Your task to perform on an android device: Go to internet settings Image 0: 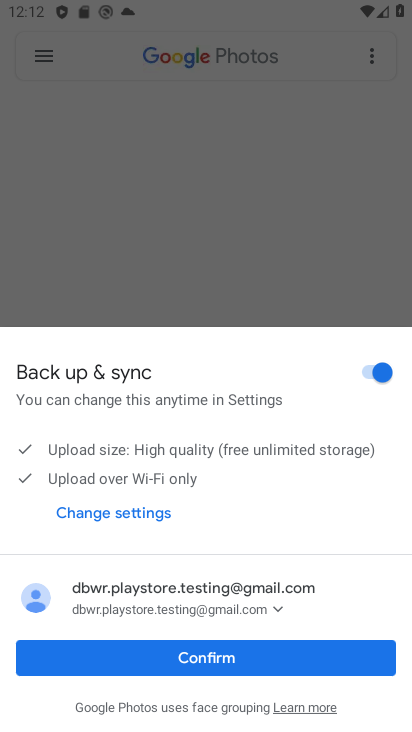
Step 0: press home button
Your task to perform on an android device: Go to internet settings Image 1: 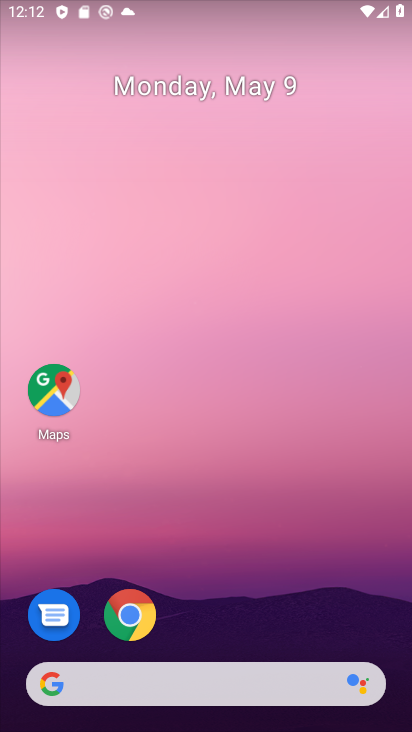
Step 1: drag from (247, 602) to (199, 106)
Your task to perform on an android device: Go to internet settings Image 2: 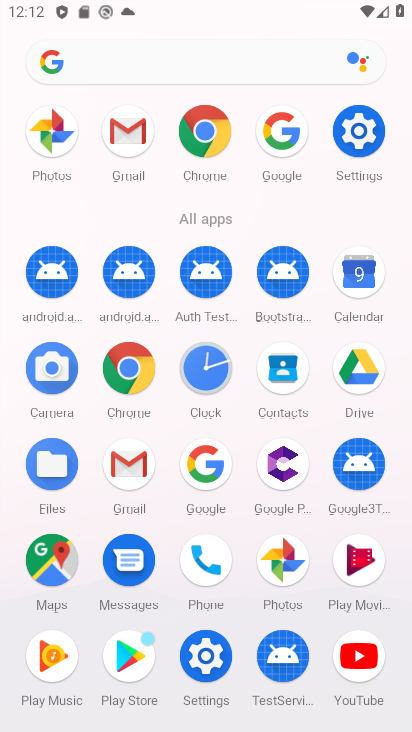
Step 2: click (358, 131)
Your task to perform on an android device: Go to internet settings Image 3: 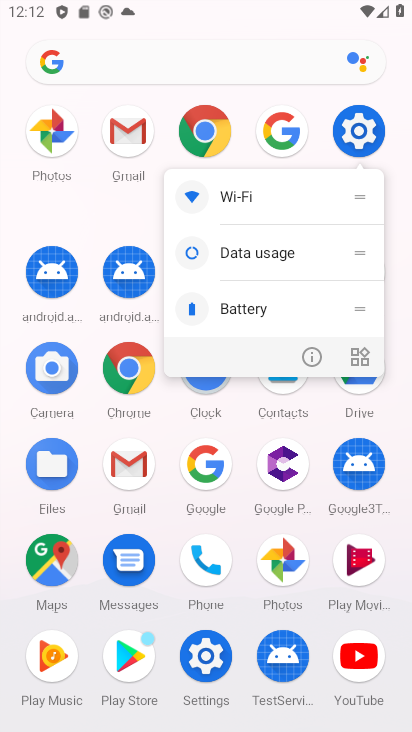
Step 3: click (360, 132)
Your task to perform on an android device: Go to internet settings Image 4: 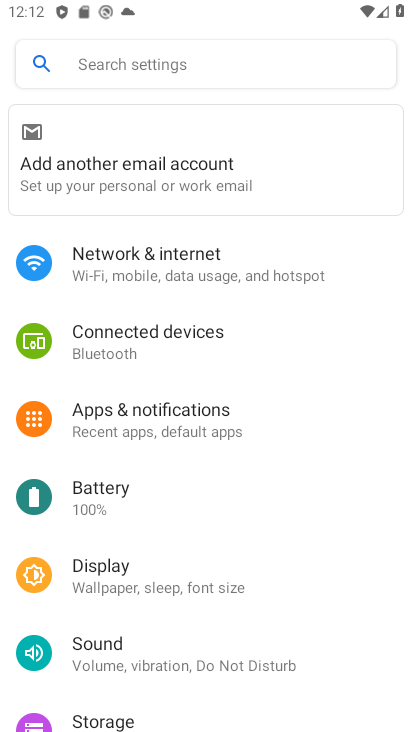
Step 4: click (157, 257)
Your task to perform on an android device: Go to internet settings Image 5: 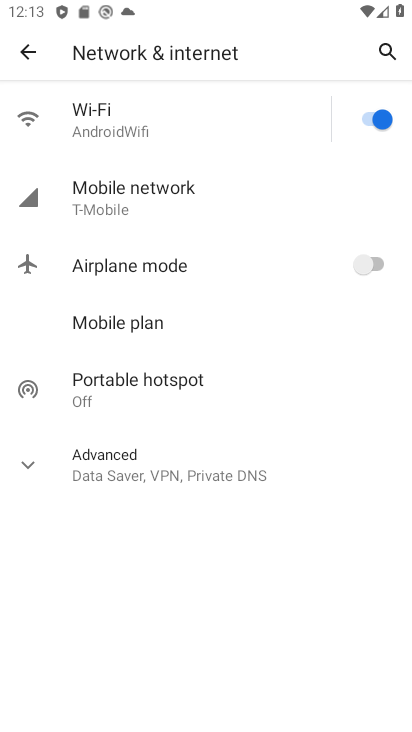
Step 5: click (134, 133)
Your task to perform on an android device: Go to internet settings Image 6: 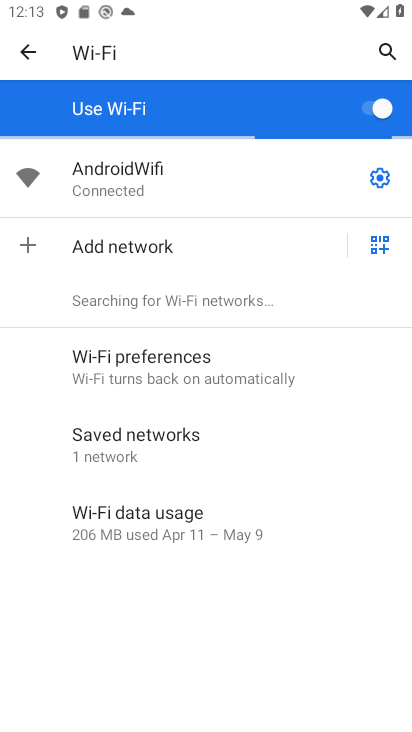
Step 6: task complete